Your task to perform on an android device: Go to Yahoo.com Image 0: 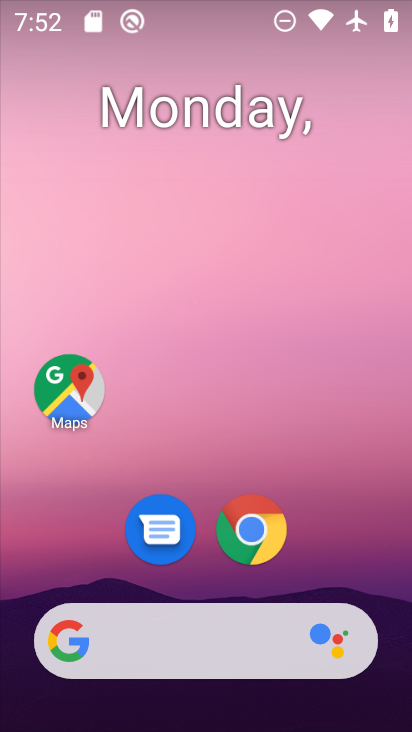
Step 0: click (254, 525)
Your task to perform on an android device: Go to Yahoo.com Image 1: 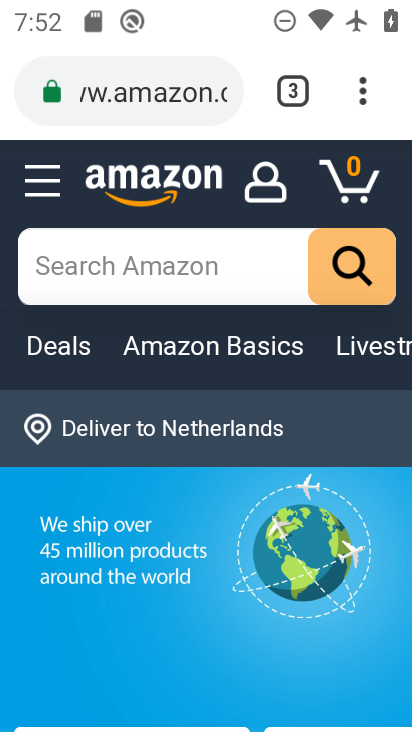
Step 1: click (370, 85)
Your task to perform on an android device: Go to Yahoo.com Image 2: 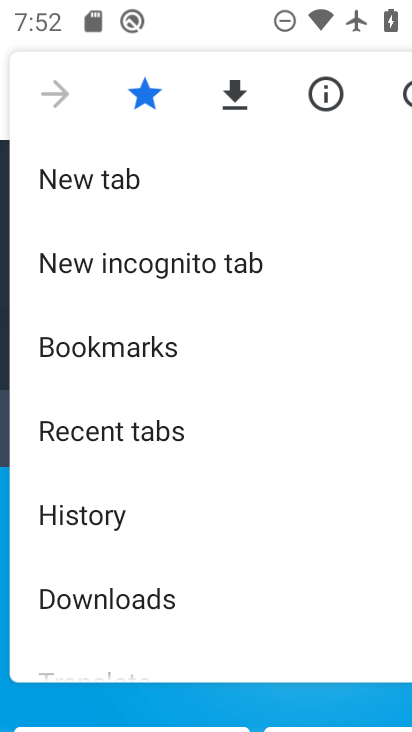
Step 2: click (78, 174)
Your task to perform on an android device: Go to Yahoo.com Image 3: 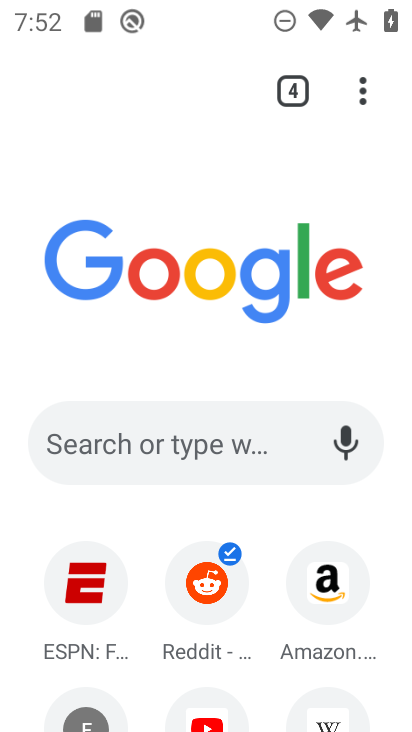
Step 3: click (140, 278)
Your task to perform on an android device: Go to Yahoo.com Image 4: 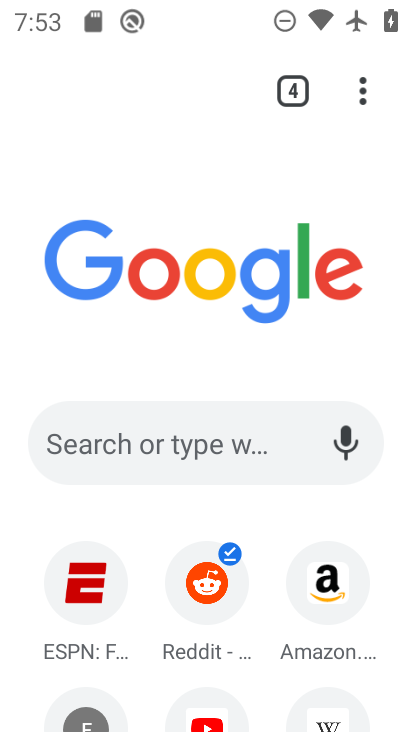
Step 4: drag from (149, 679) to (187, 252)
Your task to perform on an android device: Go to Yahoo.com Image 5: 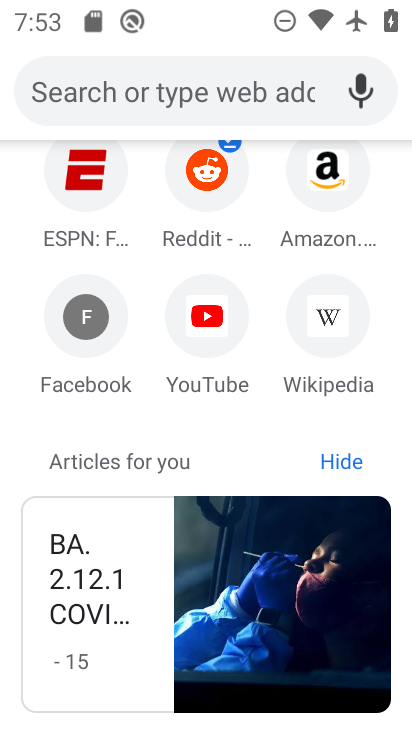
Step 5: drag from (136, 264) to (151, 678)
Your task to perform on an android device: Go to Yahoo.com Image 6: 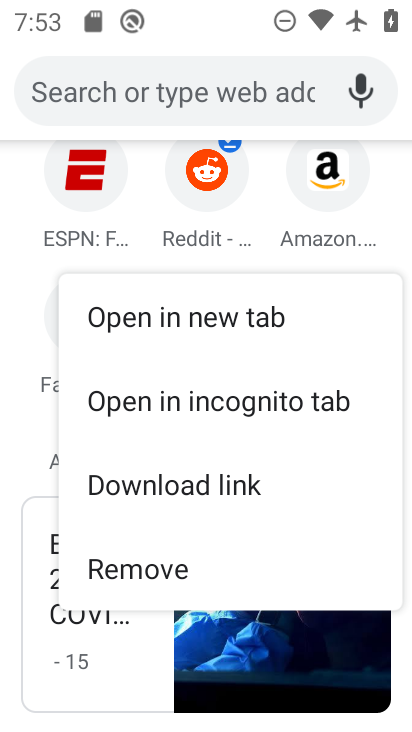
Step 6: click (19, 284)
Your task to perform on an android device: Go to Yahoo.com Image 7: 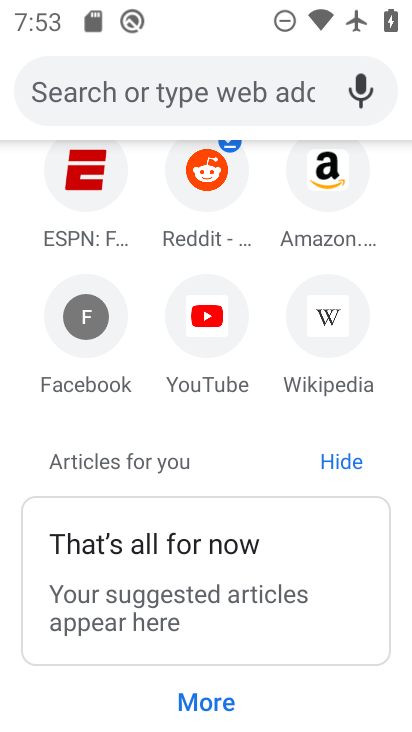
Step 7: drag from (387, 206) to (338, 716)
Your task to perform on an android device: Go to Yahoo.com Image 8: 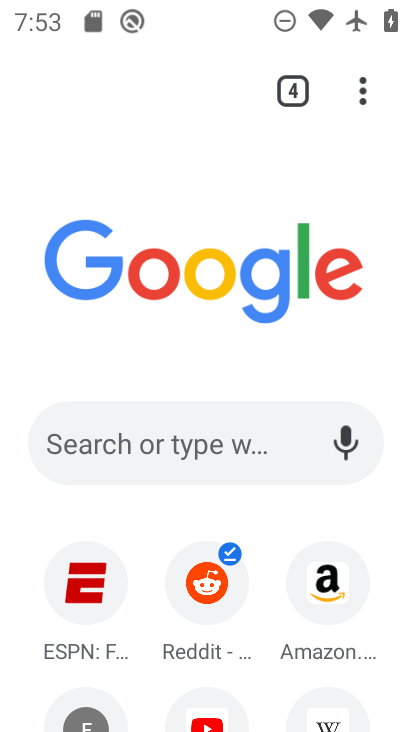
Step 8: click (142, 127)
Your task to perform on an android device: Go to Yahoo.com Image 9: 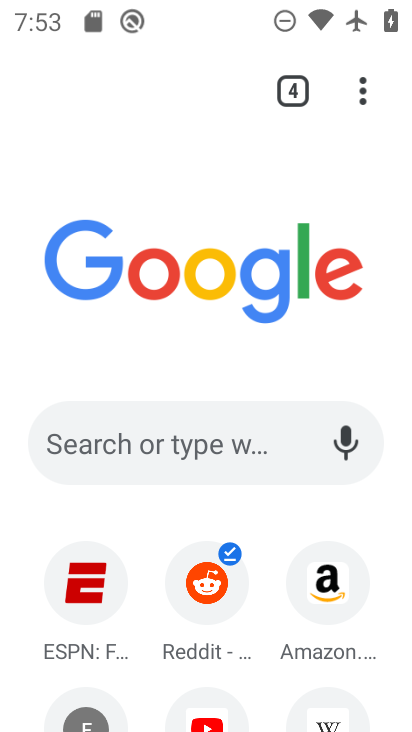
Step 9: click (177, 436)
Your task to perform on an android device: Go to Yahoo.com Image 10: 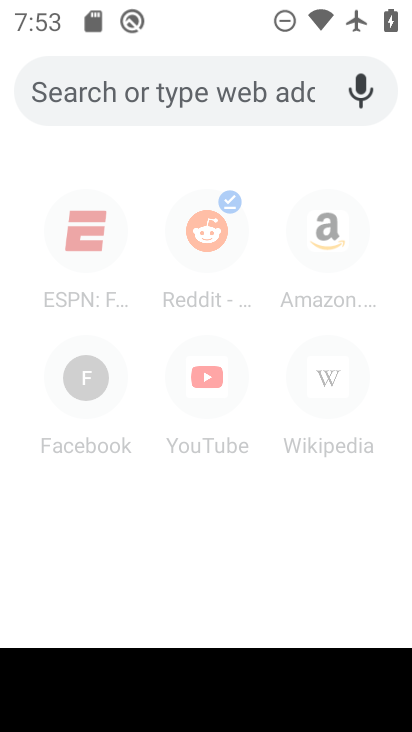
Step 10: type "yahoo.com"
Your task to perform on an android device: Go to Yahoo.com Image 11: 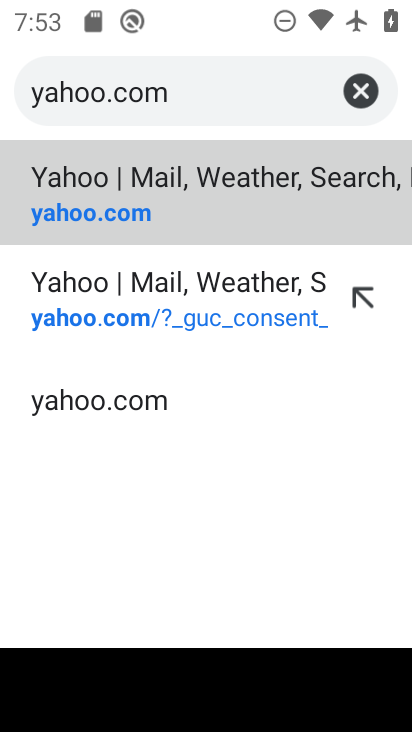
Step 11: click (120, 156)
Your task to perform on an android device: Go to Yahoo.com Image 12: 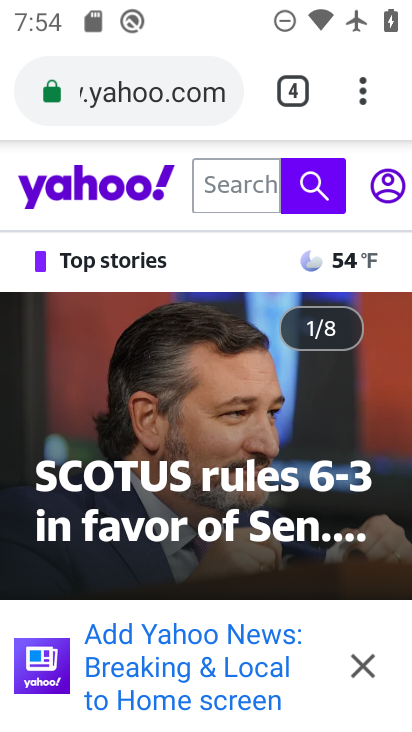
Step 12: task complete